Your task to perform on an android device: Open the map Image 0: 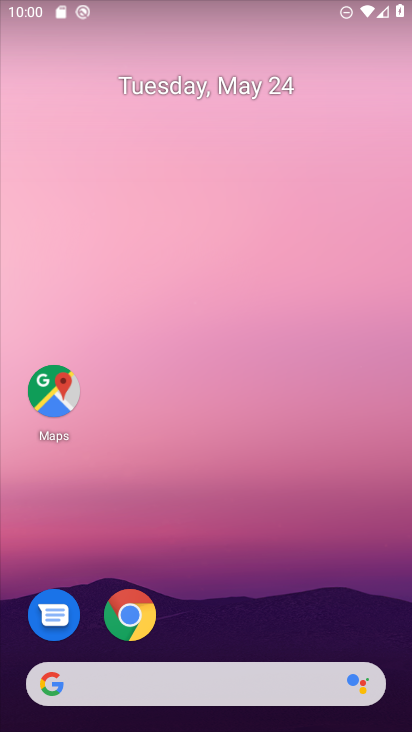
Step 0: drag from (356, 583) to (353, 244)
Your task to perform on an android device: Open the map Image 1: 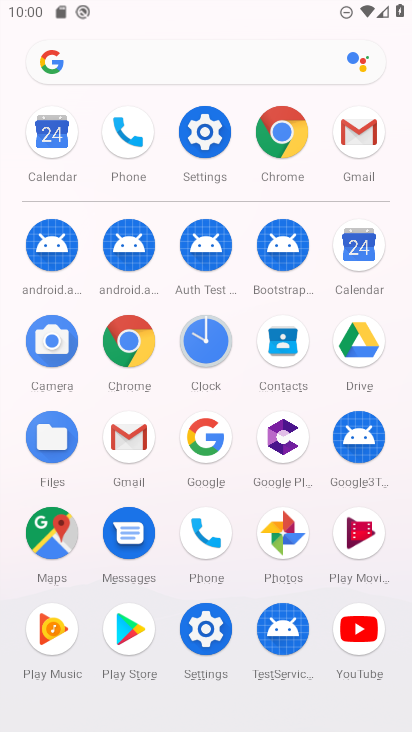
Step 1: click (73, 527)
Your task to perform on an android device: Open the map Image 2: 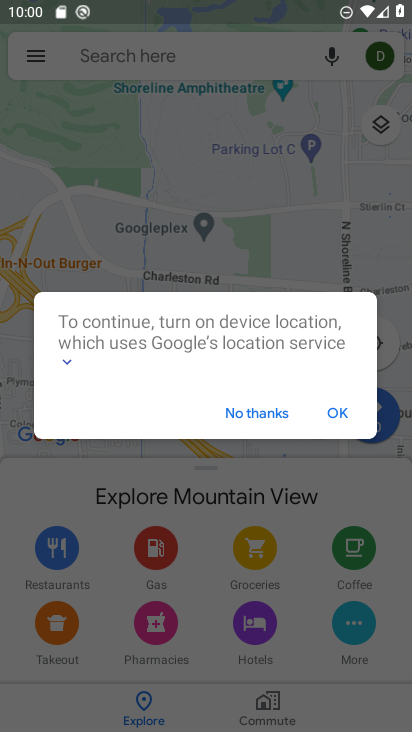
Step 2: press home button
Your task to perform on an android device: Open the map Image 3: 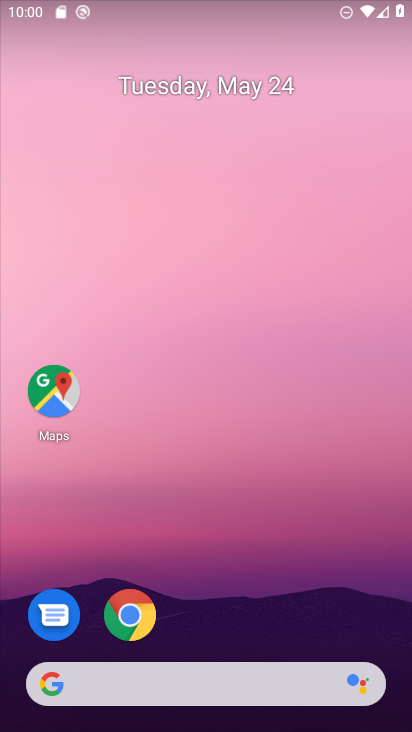
Step 3: drag from (362, 617) to (345, 241)
Your task to perform on an android device: Open the map Image 4: 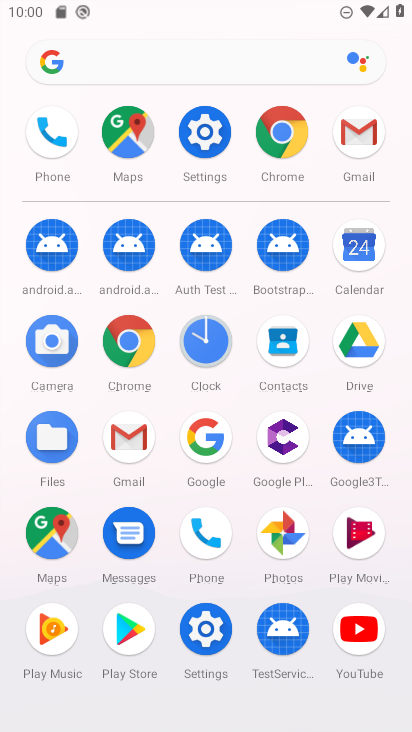
Step 4: click (62, 528)
Your task to perform on an android device: Open the map Image 5: 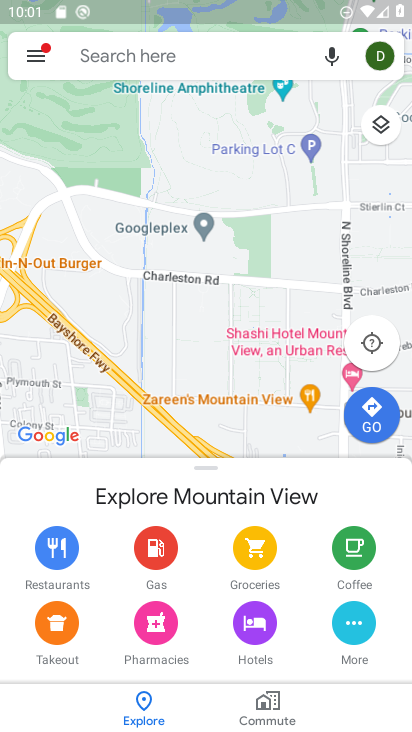
Step 5: task complete